Your task to perform on an android device: see sites visited before in the chrome app Image 0: 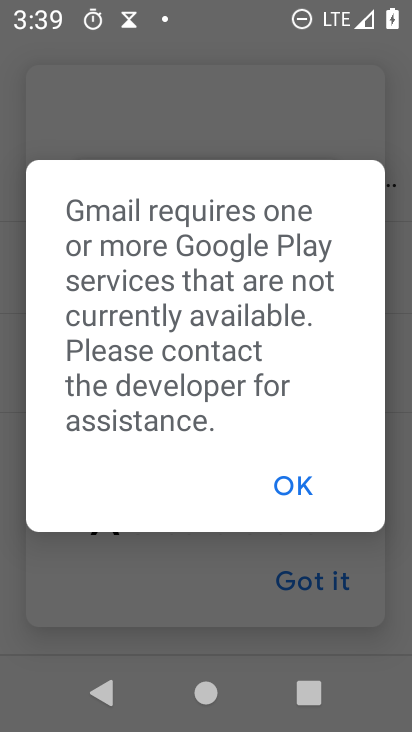
Step 0: press home button
Your task to perform on an android device: see sites visited before in the chrome app Image 1: 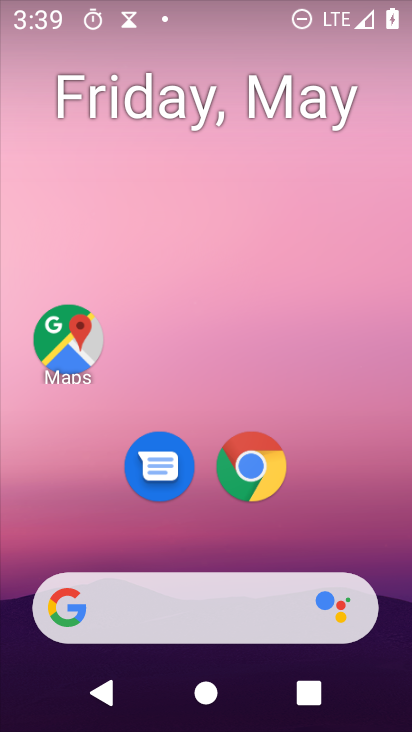
Step 1: drag from (367, 479) to (334, 77)
Your task to perform on an android device: see sites visited before in the chrome app Image 2: 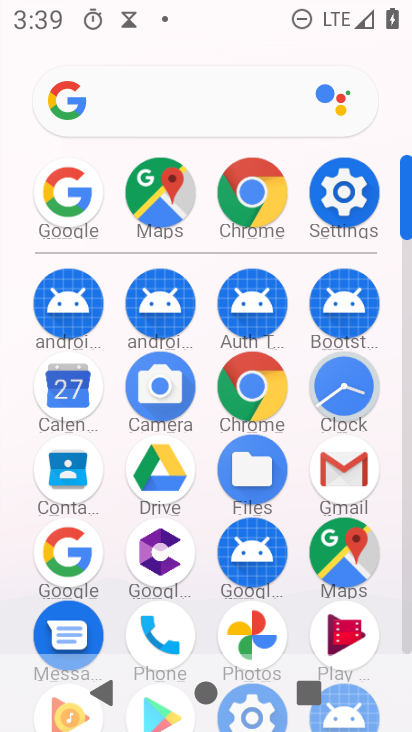
Step 2: click (237, 191)
Your task to perform on an android device: see sites visited before in the chrome app Image 3: 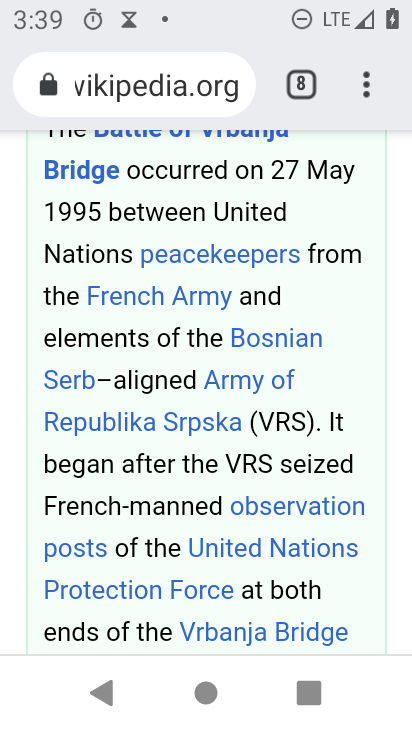
Step 3: task complete